Your task to perform on an android device: turn on translation in the chrome app Image 0: 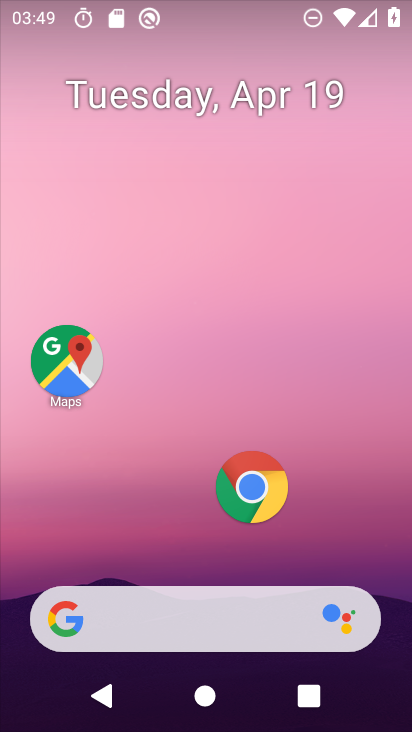
Step 0: click (268, 495)
Your task to perform on an android device: turn on translation in the chrome app Image 1: 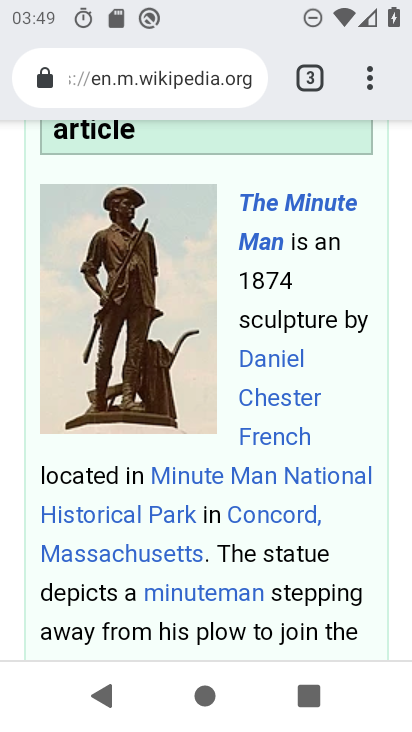
Step 1: drag from (369, 73) to (98, 545)
Your task to perform on an android device: turn on translation in the chrome app Image 2: 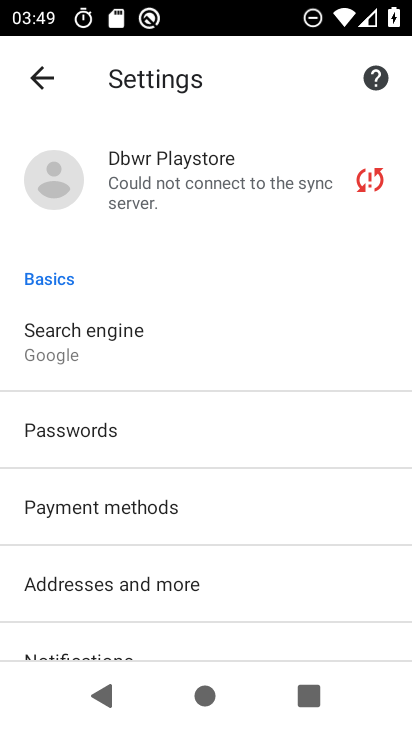
Step 2: drag from (137, 621) to (224, 189)
Your task to perform on an android device: turn on translation in the chrome app Image 3: 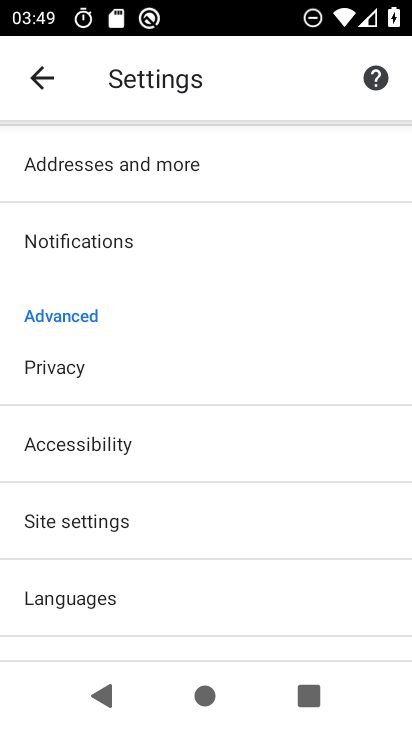
Step 3: click (81, 583)
Your task to perform on an android device: turn on translation in the chrome app Image 4: 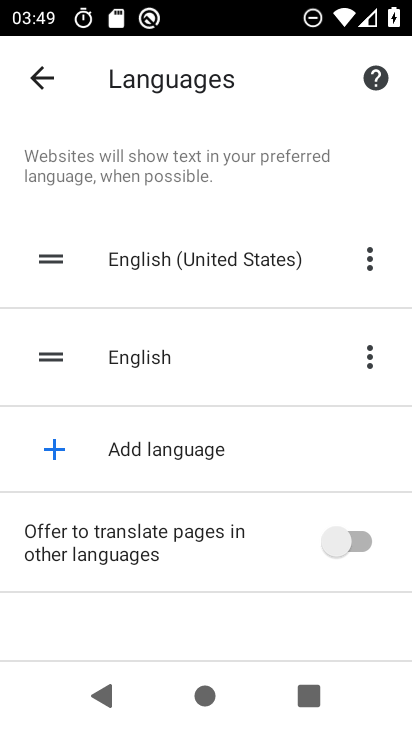
Step 4: click (335, 534)
Your task to perform on an android device: turn on translation in the chrome app Image 5: 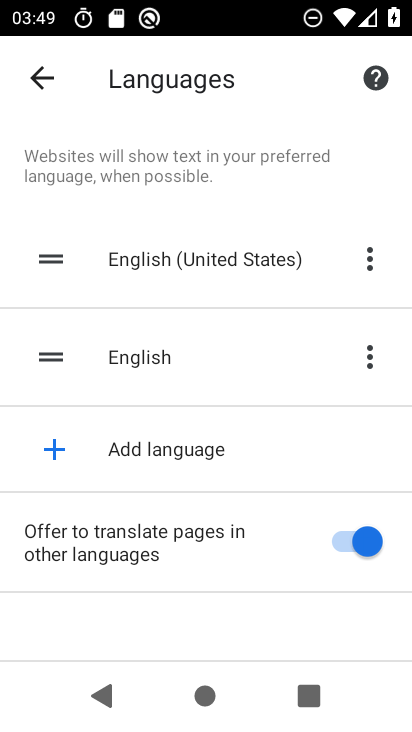
Step 5: task complete